Your task to perform on an android device: Open the calendar app, open the side menu, and click the "Day" option Image 0: 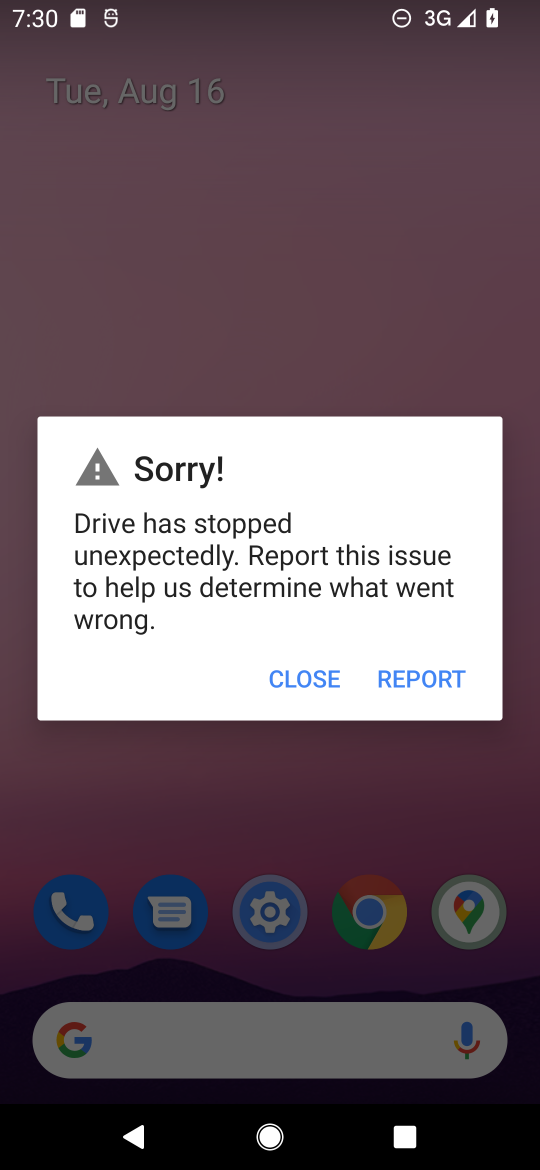
Step 0: press home button
Your task to perform on an android device: Open the calendar app, open the side menu, and click the "Day" option Image 1: 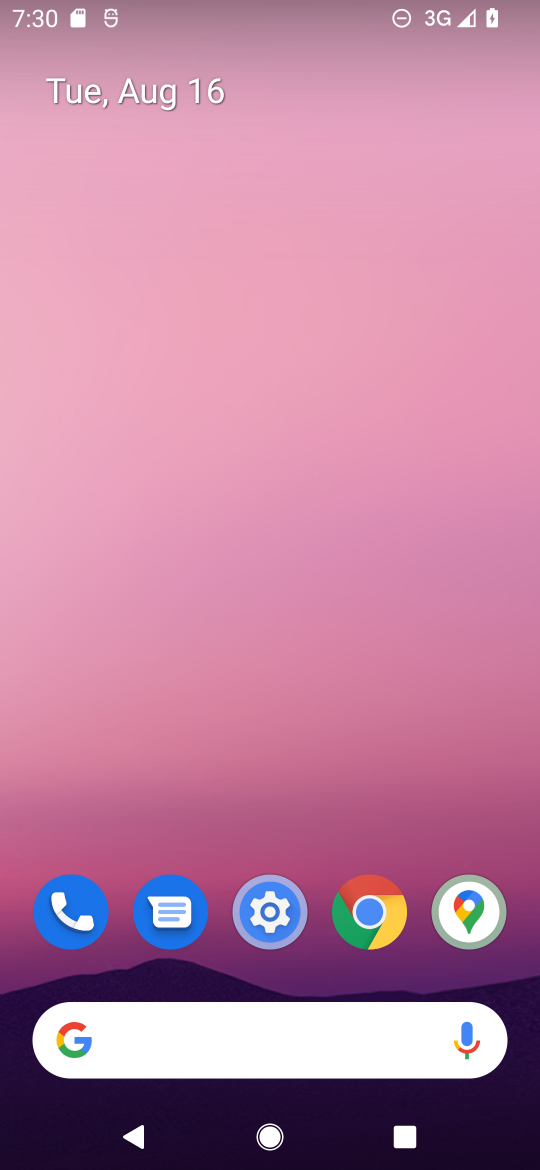
Step 1: drag from (429, 977) to (384, 102)
Your task to perform on an android device: Open the calendar app, open the side menu, and click the "Day" option Image 2: 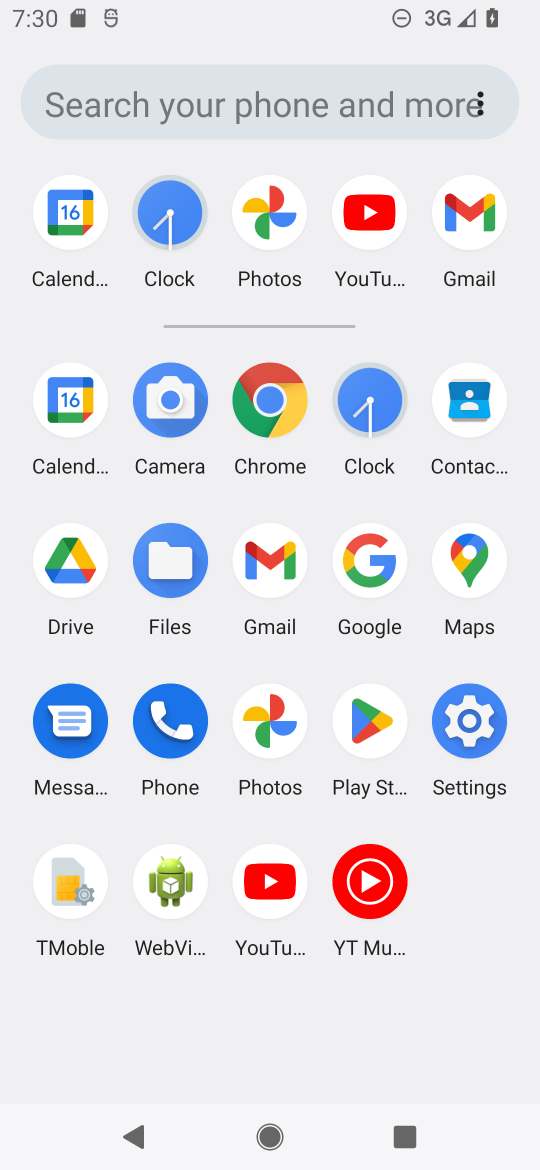
Step 2: click (72, 401)
Your task to perform on an android device: Open the calendar app, open the side menu, and click the "Day" option Image 3: 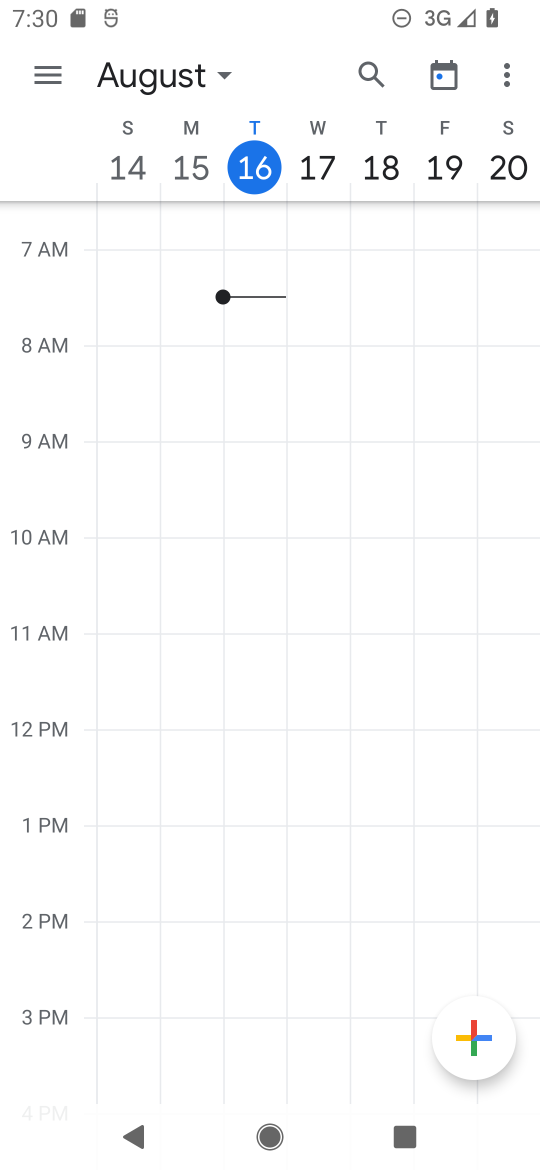
Step 3: click (41, 74)
Your task to perform on an android device: Open the calendar app, open the side menu, and click the "Day" option Image 4: 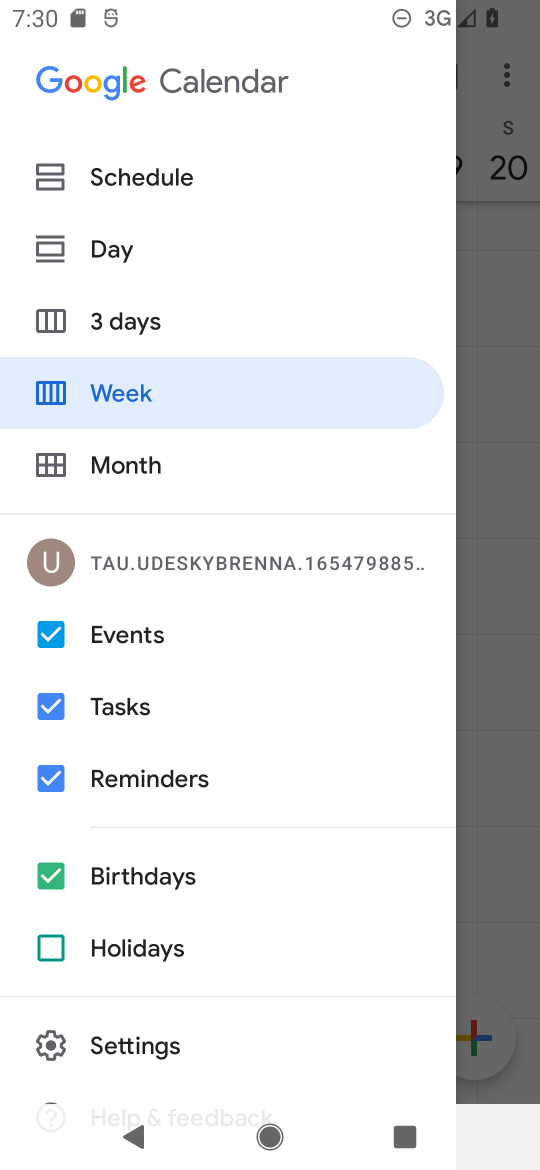
Step 4: click (104, 241)
Your task to perform on an android device: Open the calendar app, open the side menu, and click the "Day" option Image 5: 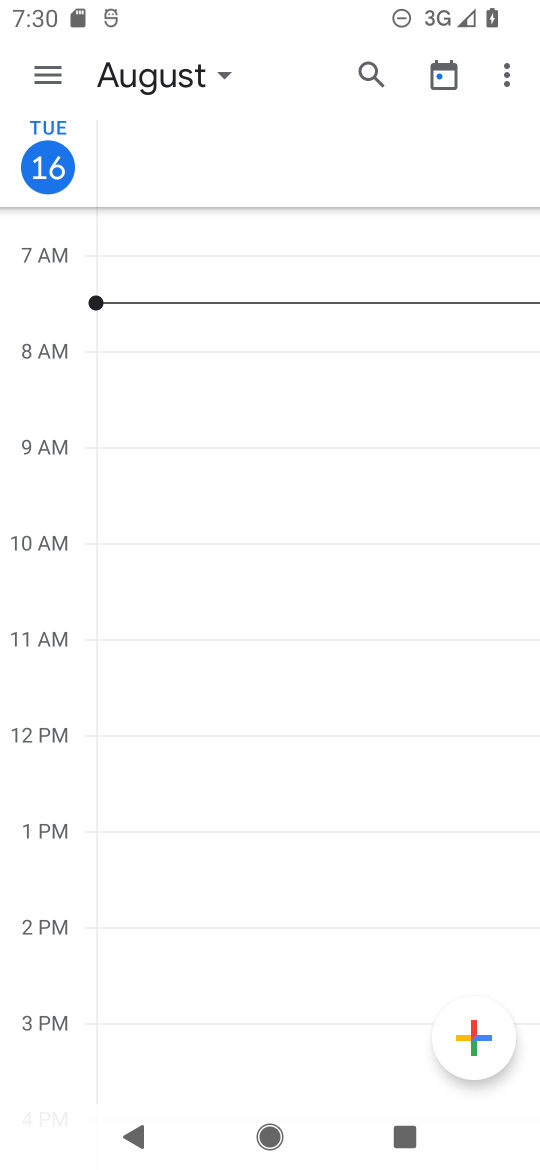
Step 5: task complete